Your task to perform on an android device: Open Maps and search for coffee Image 0: 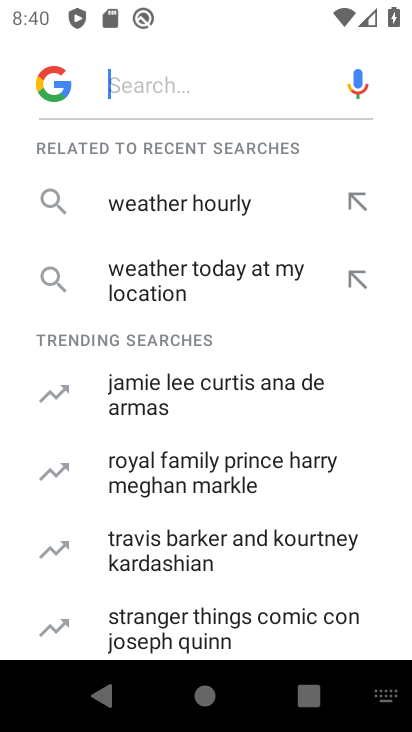
Step 0: press back button
Your task to perform on an android device: Open Maps and search for coffee Image 1: 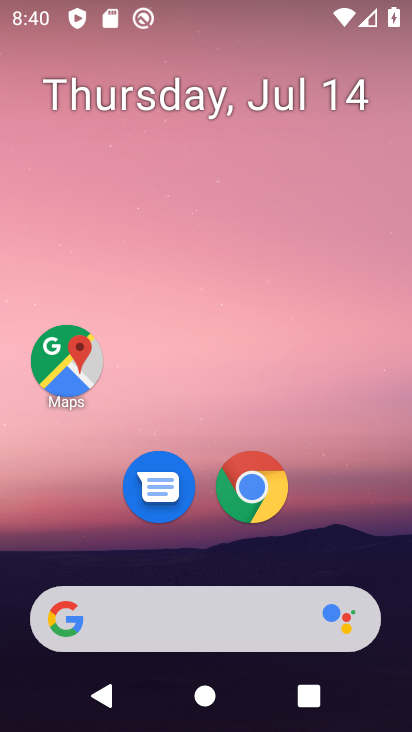
Step 1: click (67, 364)
Your task to perform on an android device: Open Maps and search for coffee Image 2: 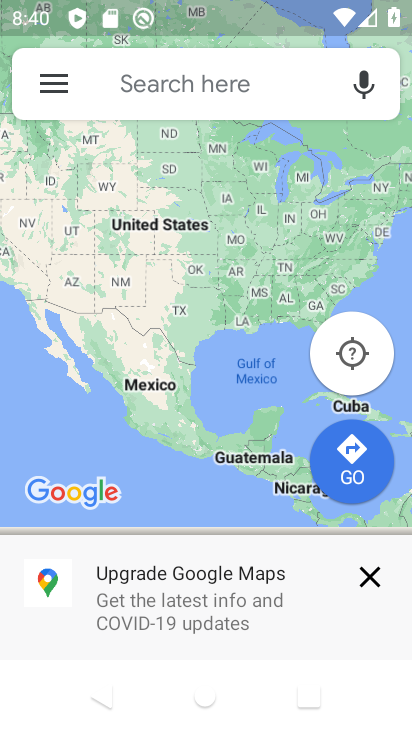
Step 2: click (187, 79)
Your task to perform on an android device: Open Maps and search for coffee Image 3: 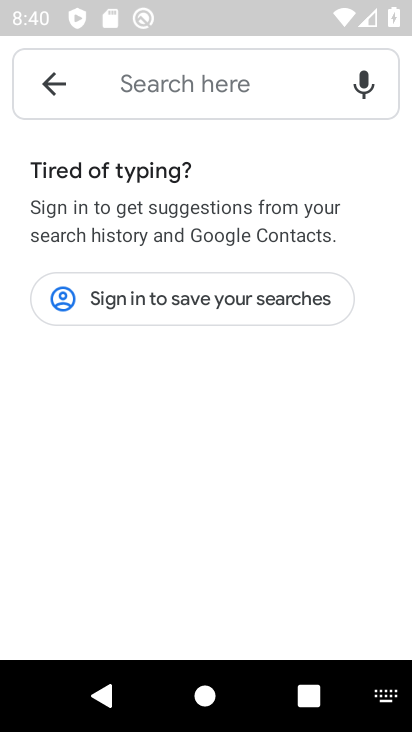
Step 3: type "coffee"
Your task to perform on an android device: Open Maps and search for coffee Image 4: 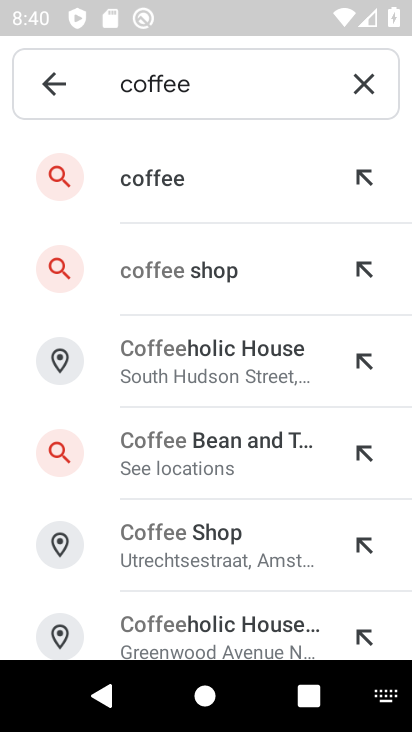
Step 4: click (186, 190)
Your task to perform on an android device: Open Maps and search for coffee Image 5: 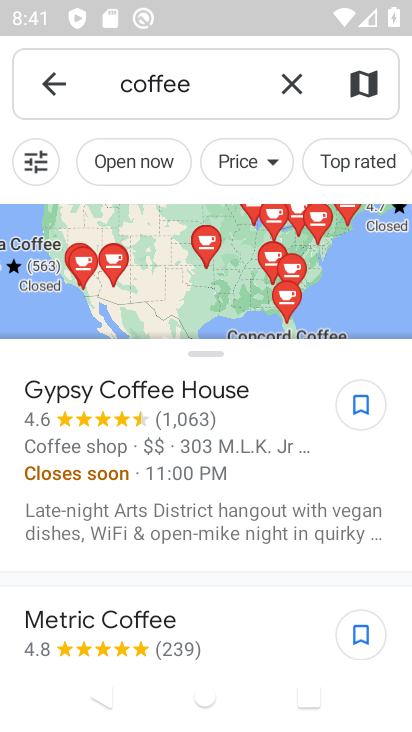
Step 5: task complete